Your task to perform on an android device: empty trash in the gmail app Image 0: 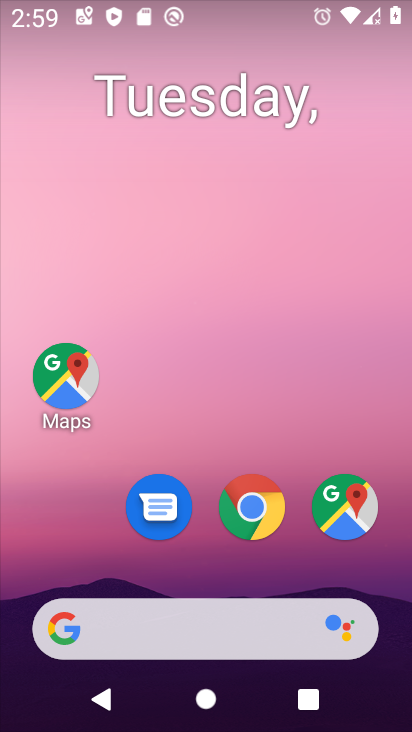
Step 0: drag from (299, 504) to (313, 162)
Your task to perform on an android device: empty trash in the gmail app Image 1: 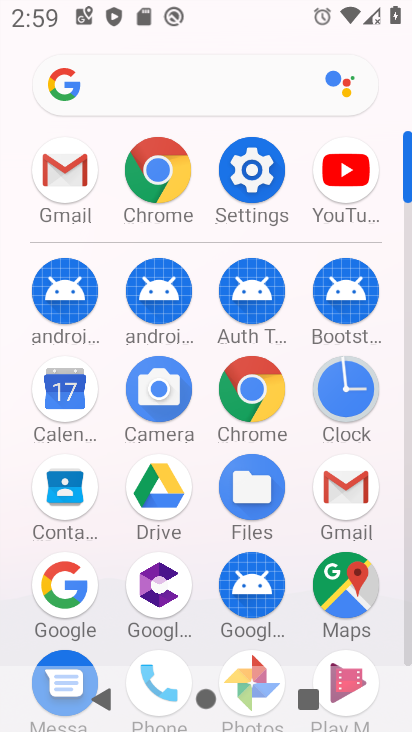
Step 1: click (335, 477)
Your task to perform on an android device: empty trash in the gmail app Image 2: 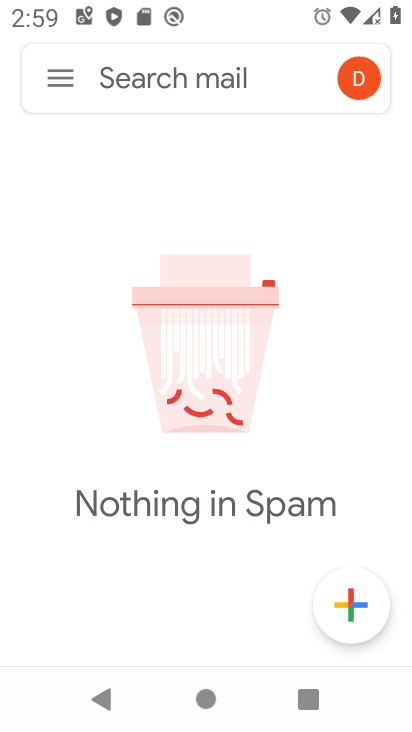
Step 2: click (52, 78)
Your task to perform on an android device: empty trash in the gmail app Image 3: 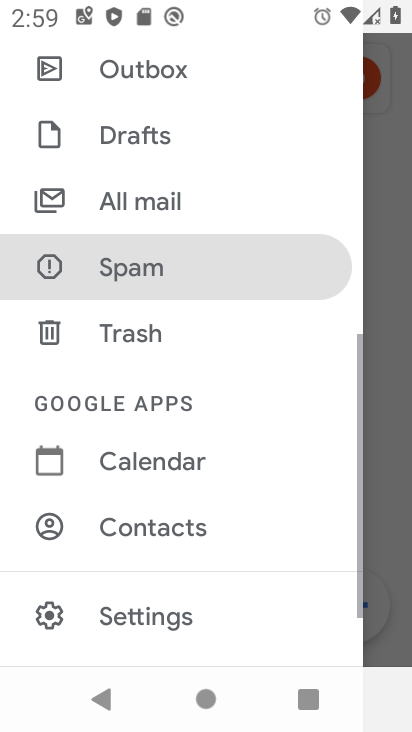
Step 3: click (132, 329)
Your task to perform on an android device: empty trash in the gmail app Image 4: 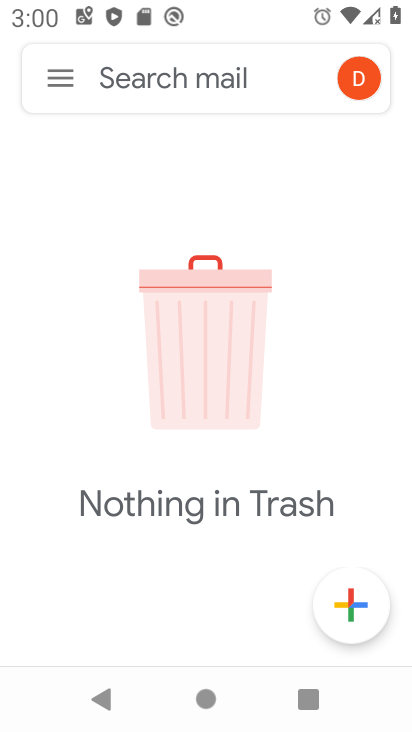
Step 4: task complete